Your task to perform on an android device: change your default location settings in chrome Image 0: 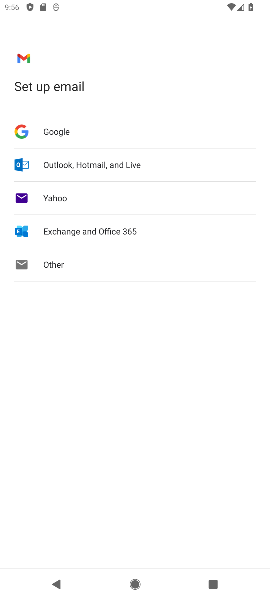
Step 0: press home button
Your task to perform on an android device: change your default location settings in chrome Image 1: 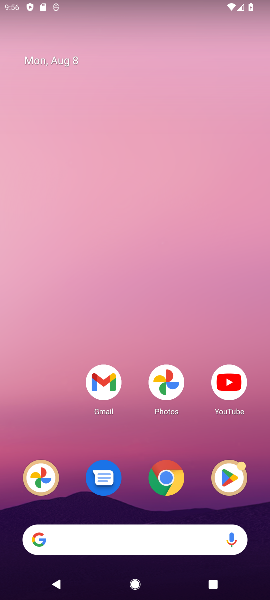
Step 1: click (152, 485)
Your task to perform on an android device: change your default location settings in chrome Image 2: 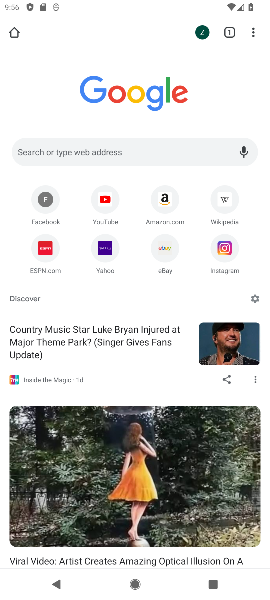
Step 2: drag from (253, 24) to (145, 314)
Your task to perform on an android device: change your default location settings in chrome Image 3: 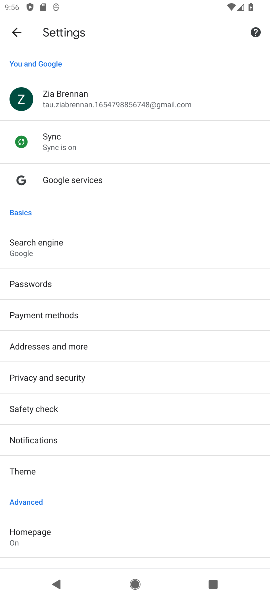
Step 3: drag from (131, 436) to (112, 99)
Your task to perform on an android device: change your default location settings in chrome Image 4: 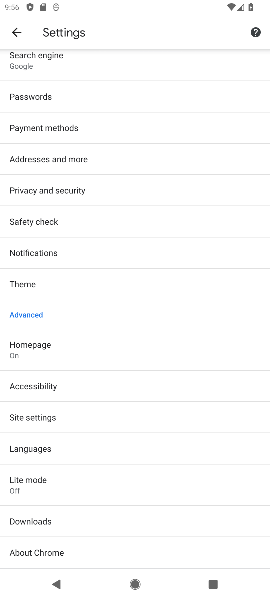
Step 4: click (35, 414)
Your task to perform on an android device: change your default location settings in chrome Image 5: 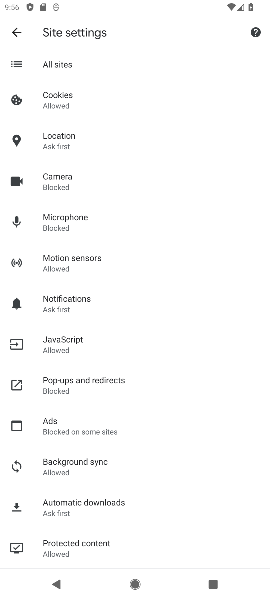
Step 5: click (57, 140)
Your task to perform on an android device: change your default location settings in chrome Image 6: 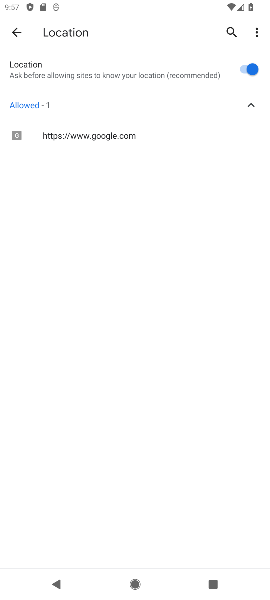
Step 6: click (236, 56)
Your task to perform on an android device: change your default location settings in chrome Image 7: 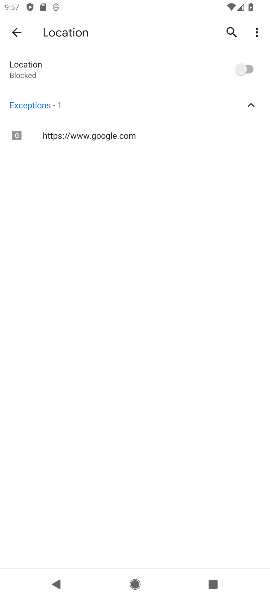
Step 7: task complete